Your task to perform on an android device: check data usage Image 0: 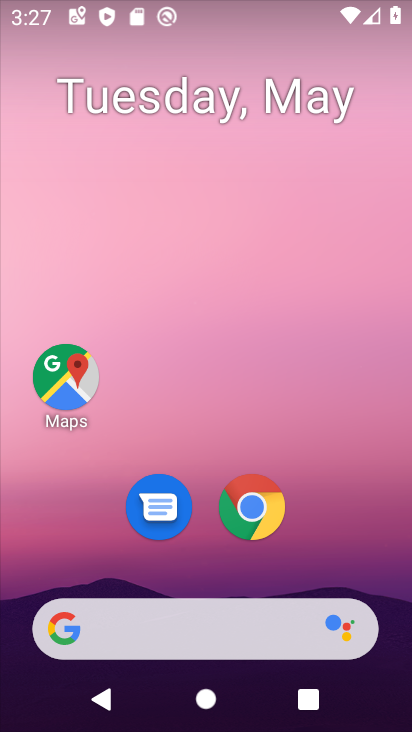
Step 0: drag from (198, 576) to (259, 46)
Your task to perform on an android device: check data usage Image 1: 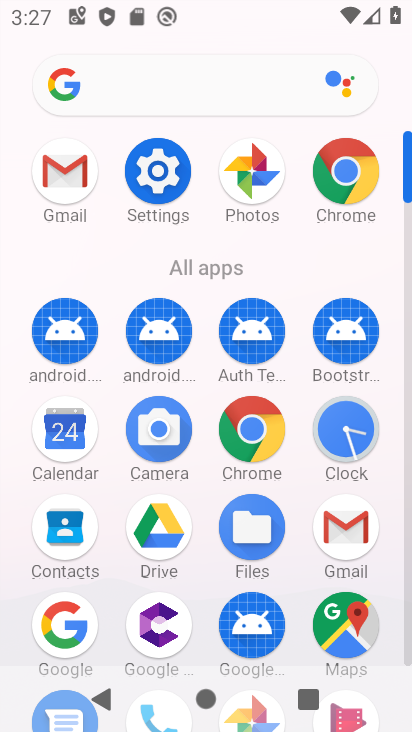
Step 1: click (128, 159)
Your task to perform on an android device: check data usage Image 2: 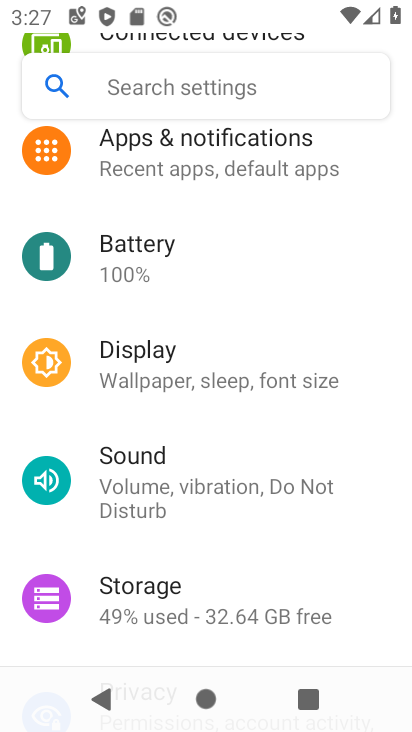
Step 2: drag from (155, 230) to (214, 578)
Your task to perform on an android device: check data usage Image 3: 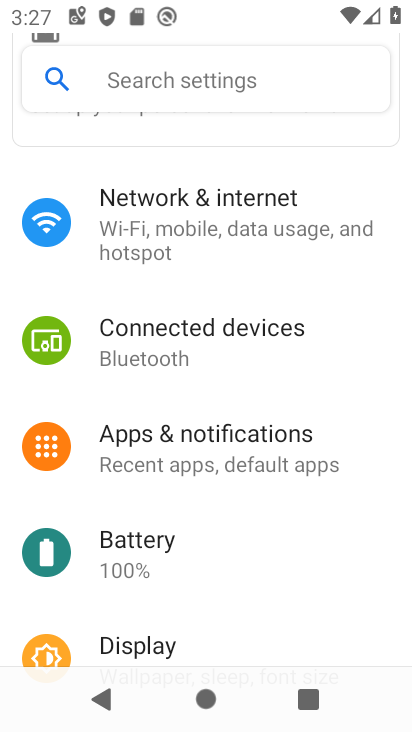
Step 3: drag from (140, 222) to (179, 553)
Your task to perform on an android device: check data usage Image 4: 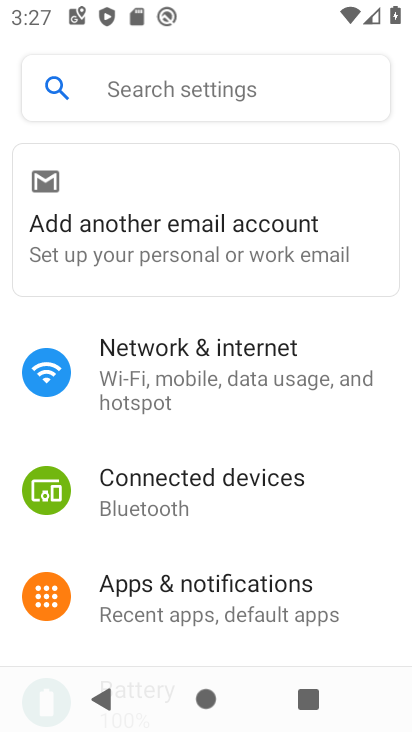
Step 4: click (161, 390)
Your task to perform on an android device: check data usage Image 5: 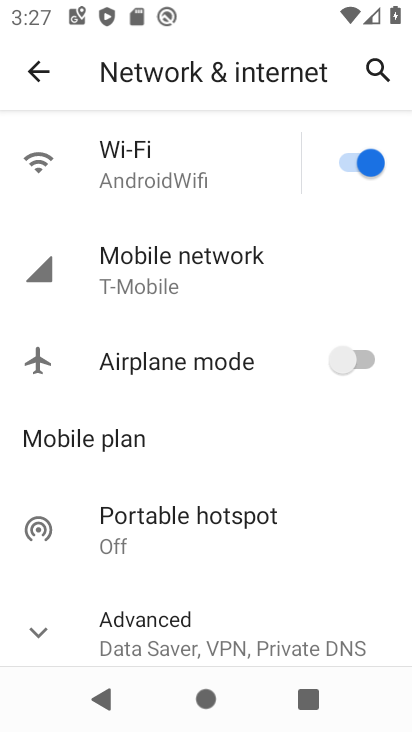
Step 5: click (191, 265)
Your task to perform on an android device: check data usage Image 6: 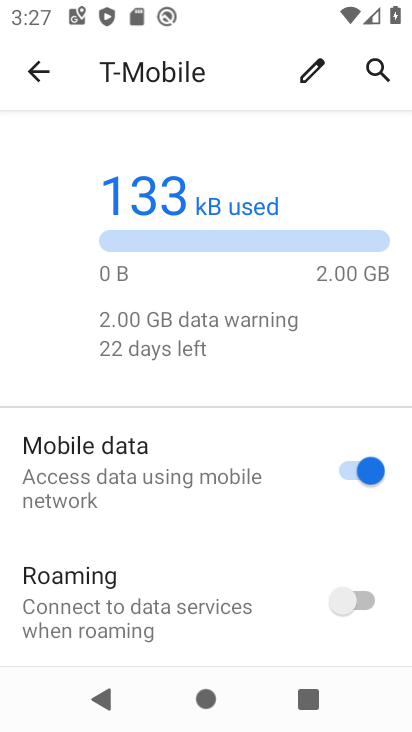
Step 6: drag from (171, 605) to (193, 287)
Your task to perform on an android device: check data usage Image 7: 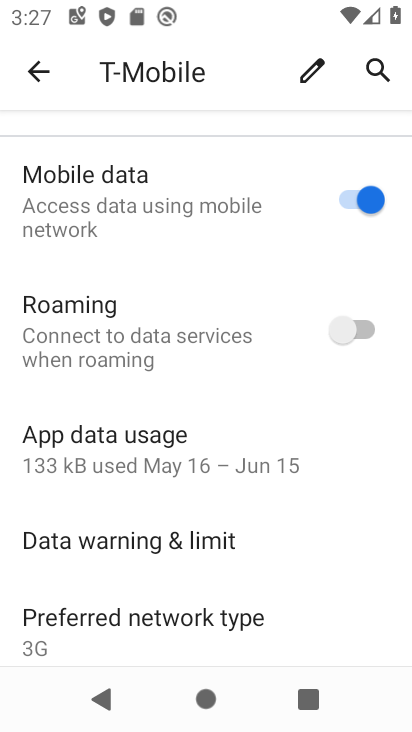
Step 7: click (147, 462)
Your task to perform on an android device: check data usage Image 8: 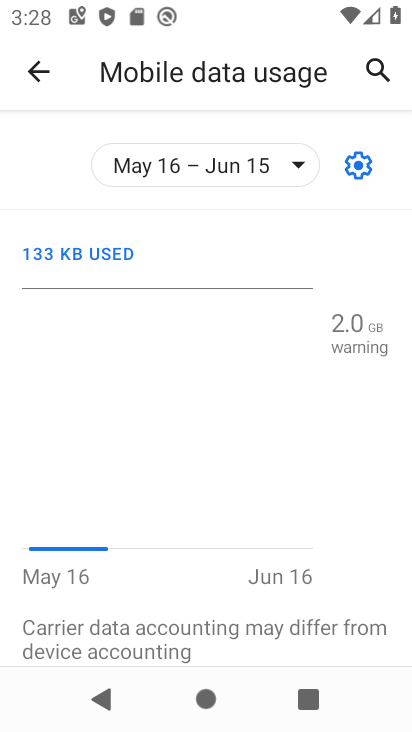
Step 8: task complete